Your task to perform on an android device: Open Google Image 0: 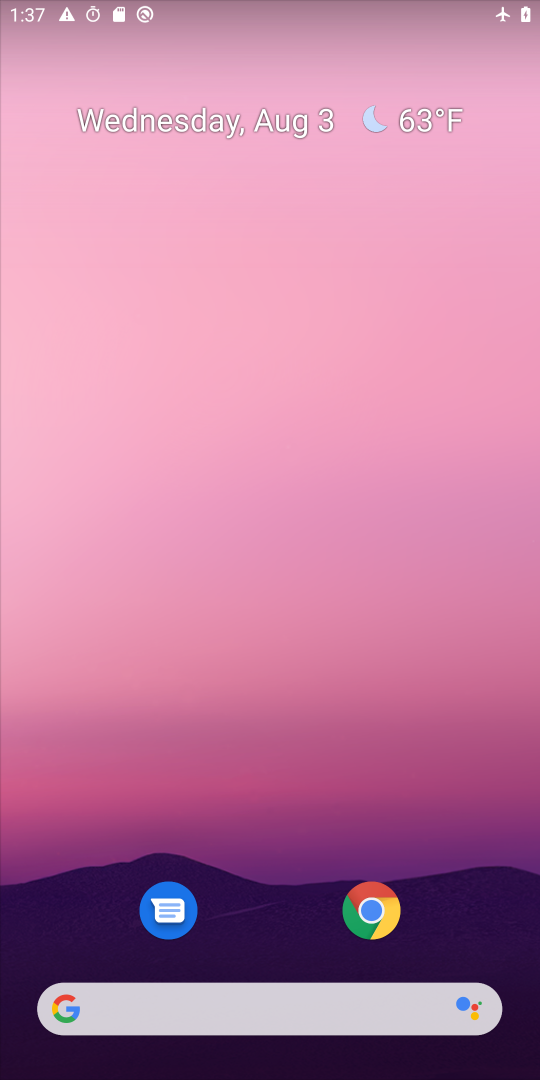
Step 0: drag from (267, 871) to (252, 6)
Your task to perform on an android device: Open Google Image 1: 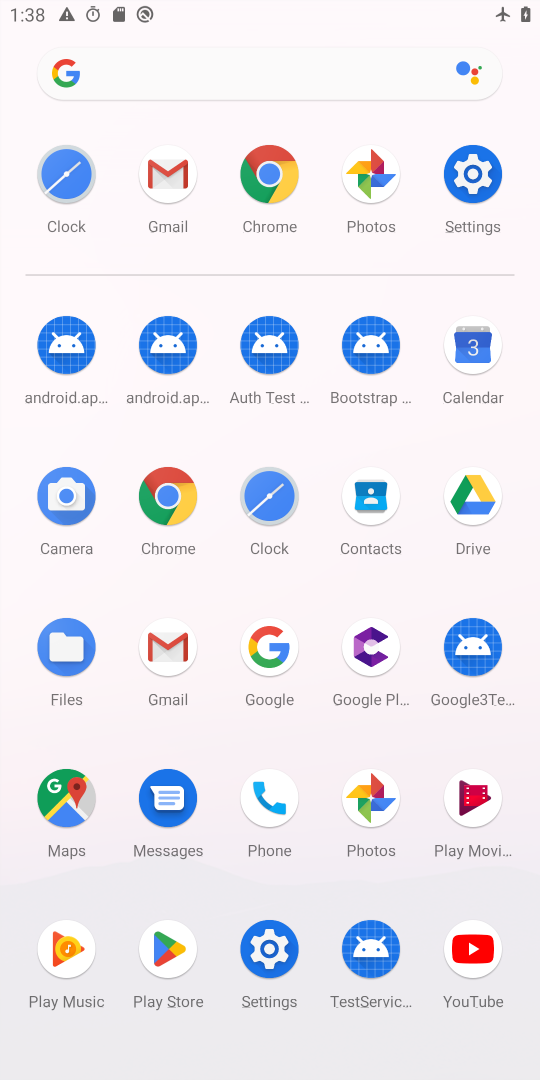
Step 1: click (185, 507)
Your task to perform on an android device: Open Google Image 2: 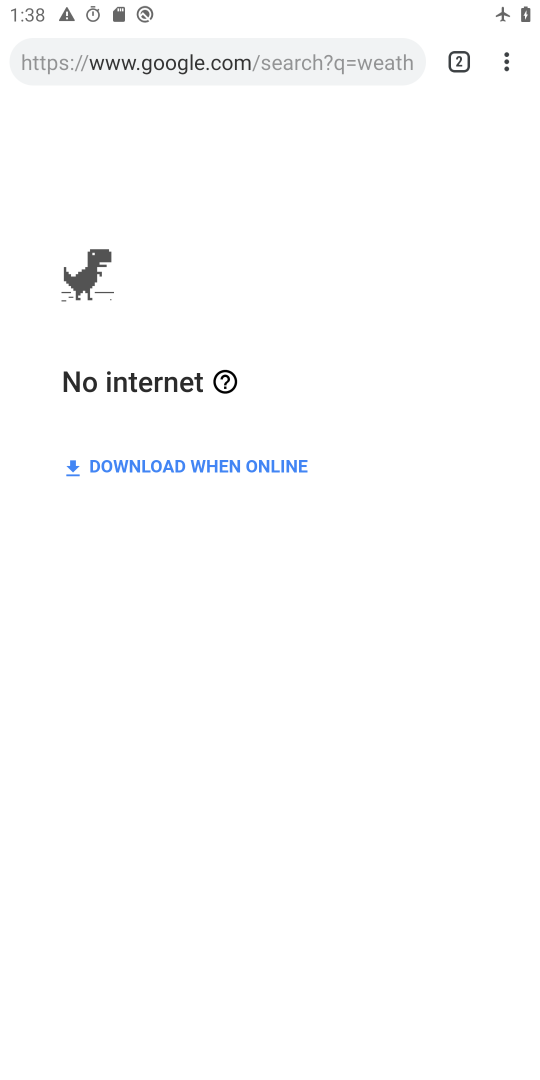
Step 2: task complete